Your task to perform on an android device: Open calendar and show me the third week of next month Image 0: 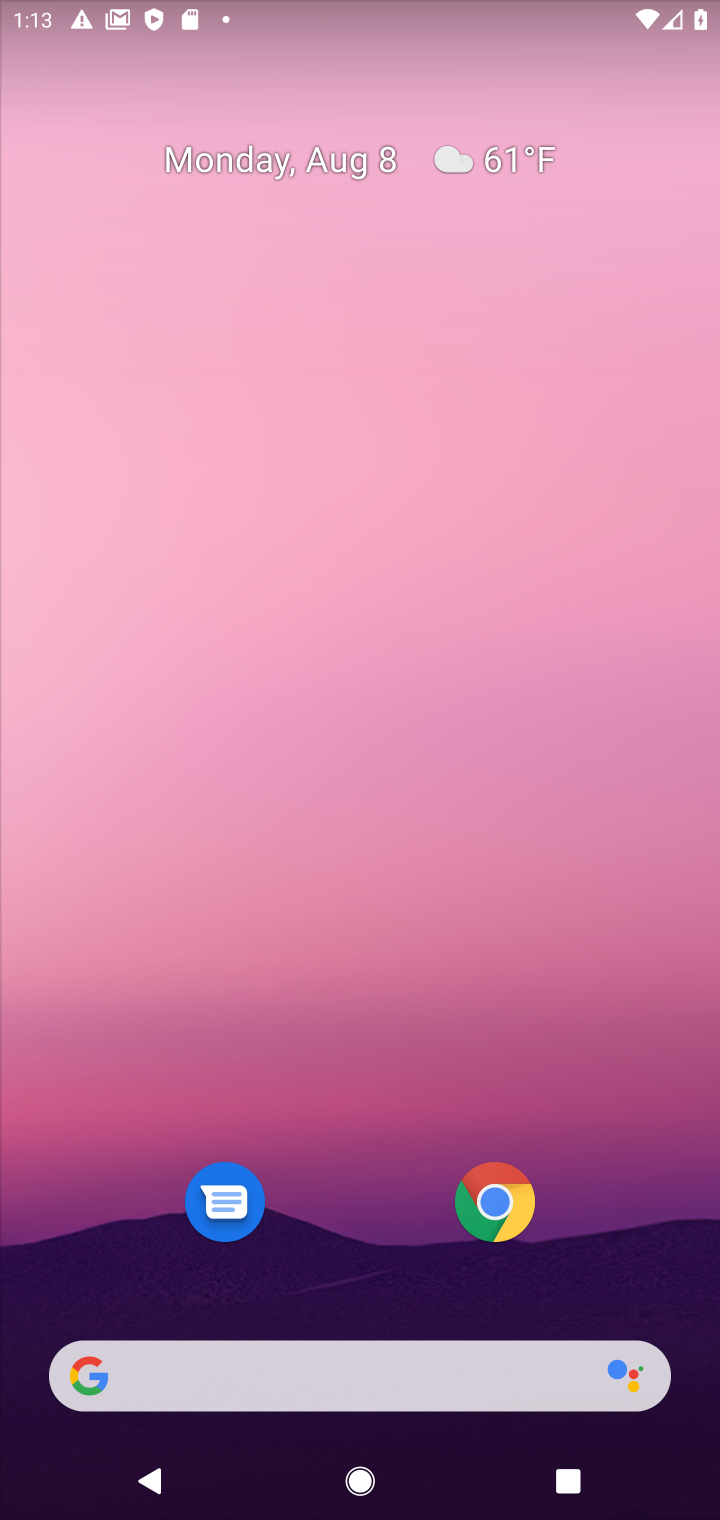
Step 0: drag from (380, 974) to (437, 375)
Your task to perform on an android device: Open calendar and show me the third week of next month Image 1: 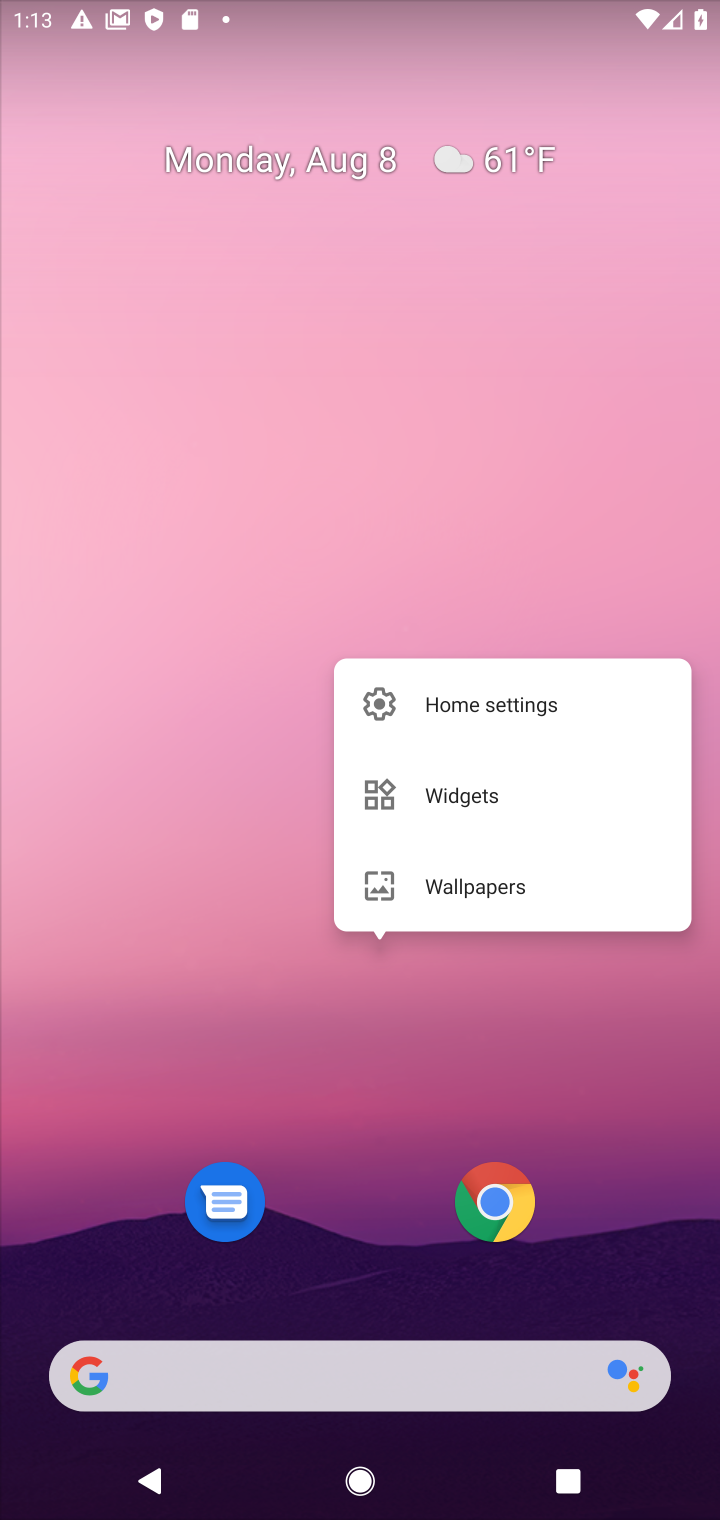
Step 1: click (336, 1020)
Your task to perform on an android device: Open calendar and show me the third week of next month Image 2: 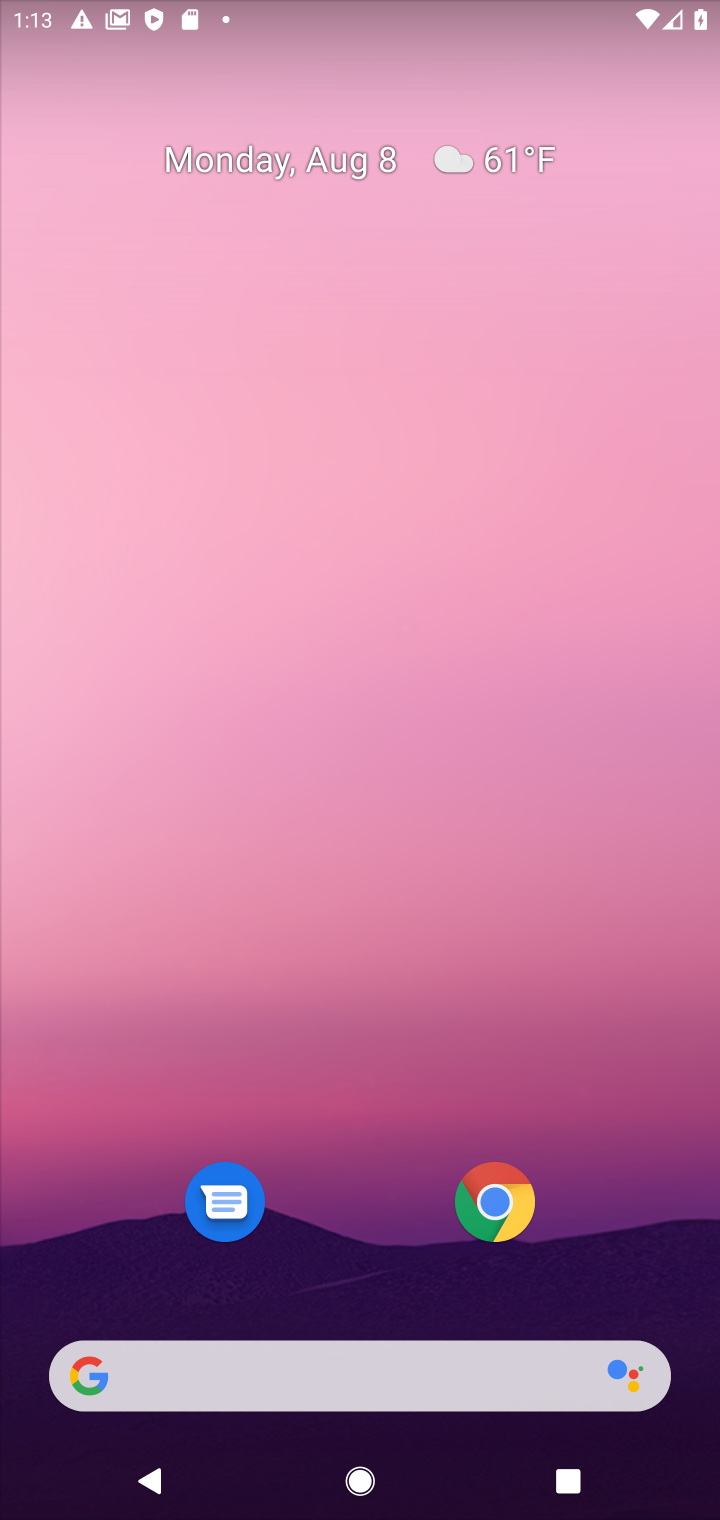
Step 2: drag from (384, 885) to (427, 206)
Your task to perform on an android device: Open calendar and show me the third week of next month Image 3: 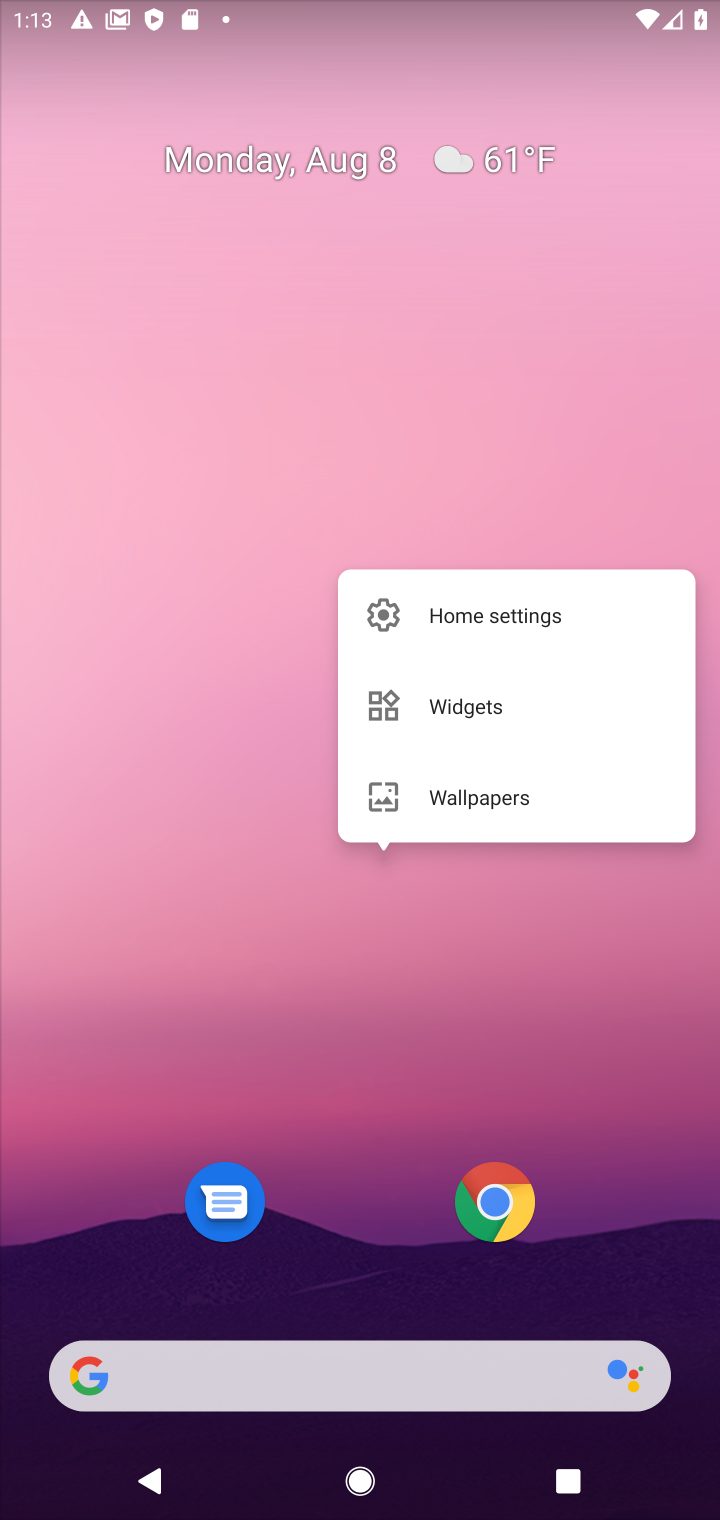
Step 3: click (658, 1011)
Your task to perform on an android device: Open calendar and show me the third week of next month Image 4: 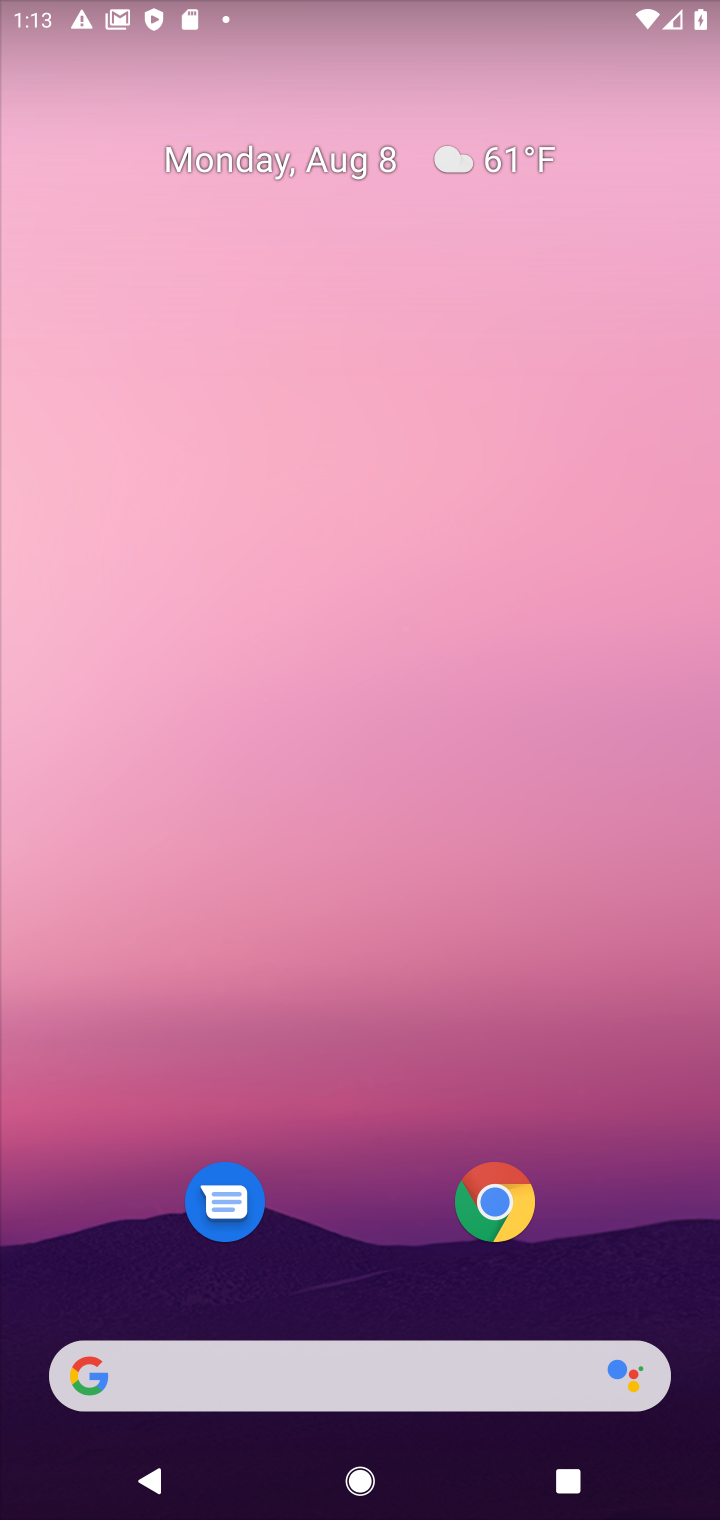
Step 4: drag from (631, 645) to (664, 75)
Your task to perform on an android device: Open calendar and show me the third week of next month Image 5: 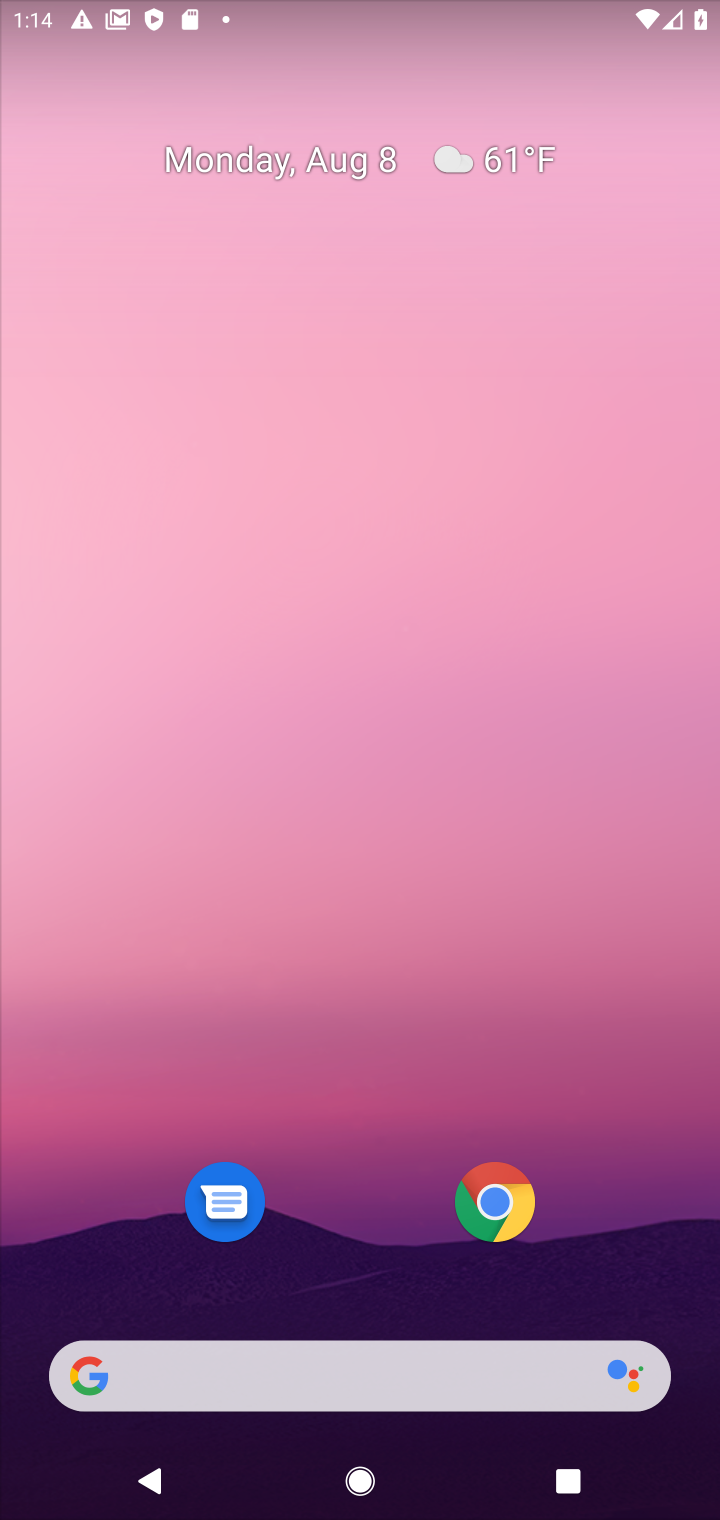
Step 5: drag from (639, 1264) to (669, 94)
Your task to perform on an android device: Open calendar and show me the third week of next month Image 6: 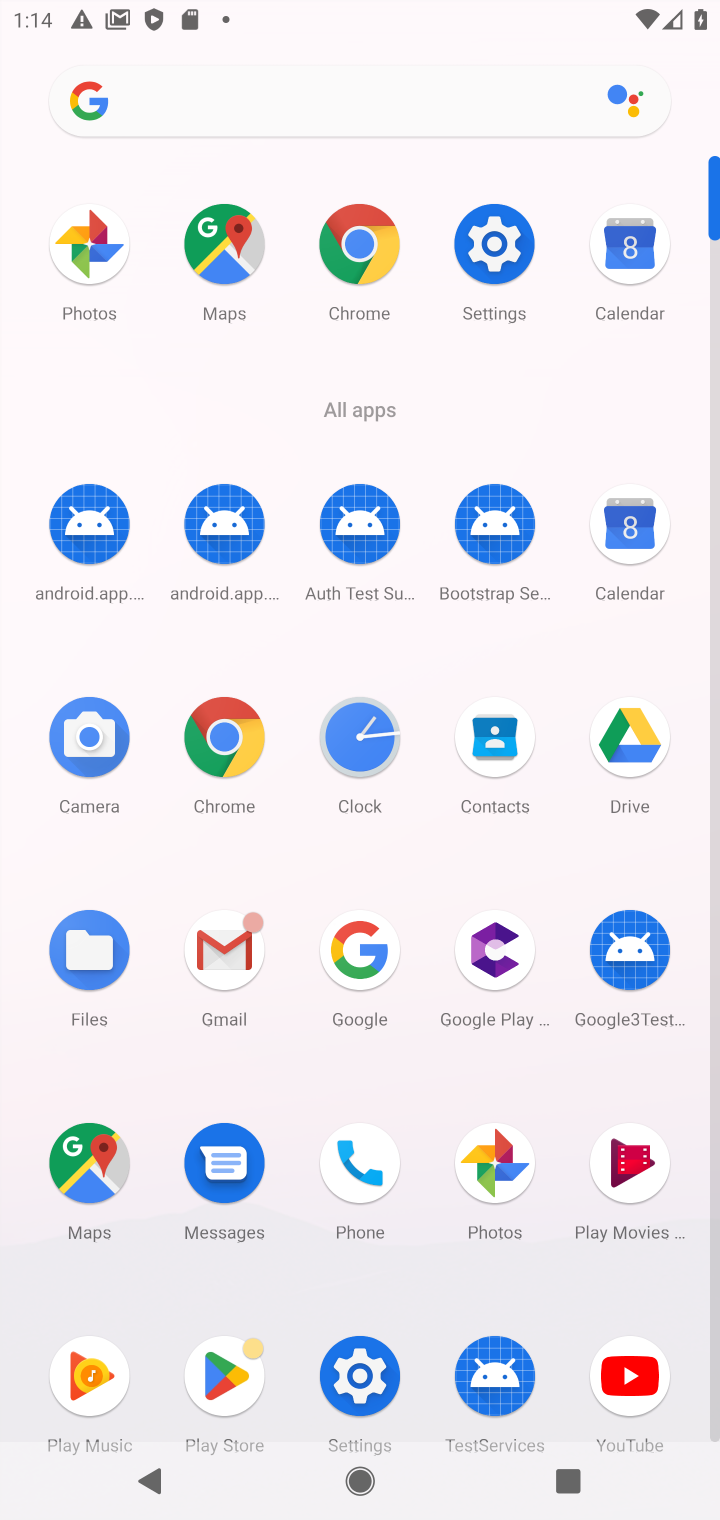
Step 6: click (628, 519)
Your task to perform on an android device: Open calendar and show me the third week of next month Image 7: 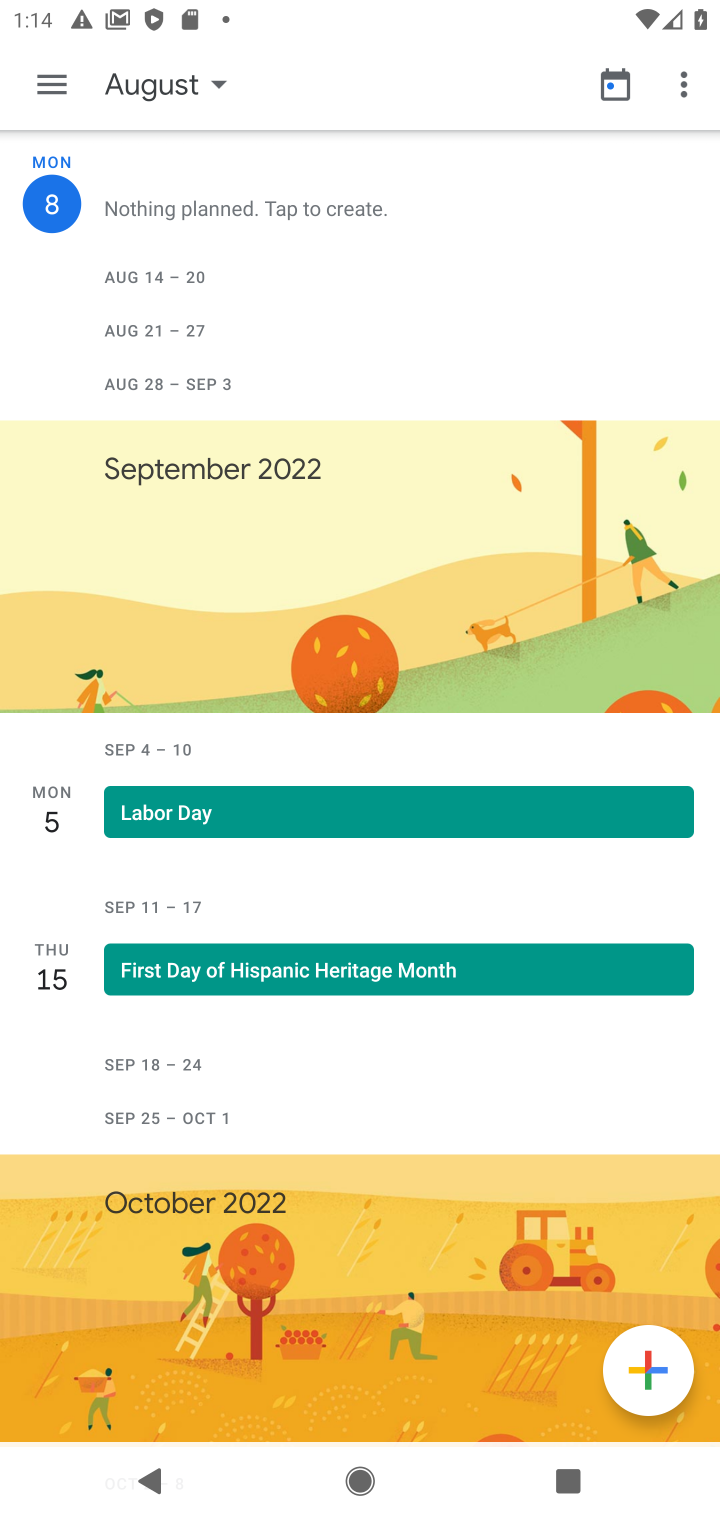
Step 7: click (217, 84)
Your task to perform on an android device: Open calendar and show me the third week of next month Image 8: 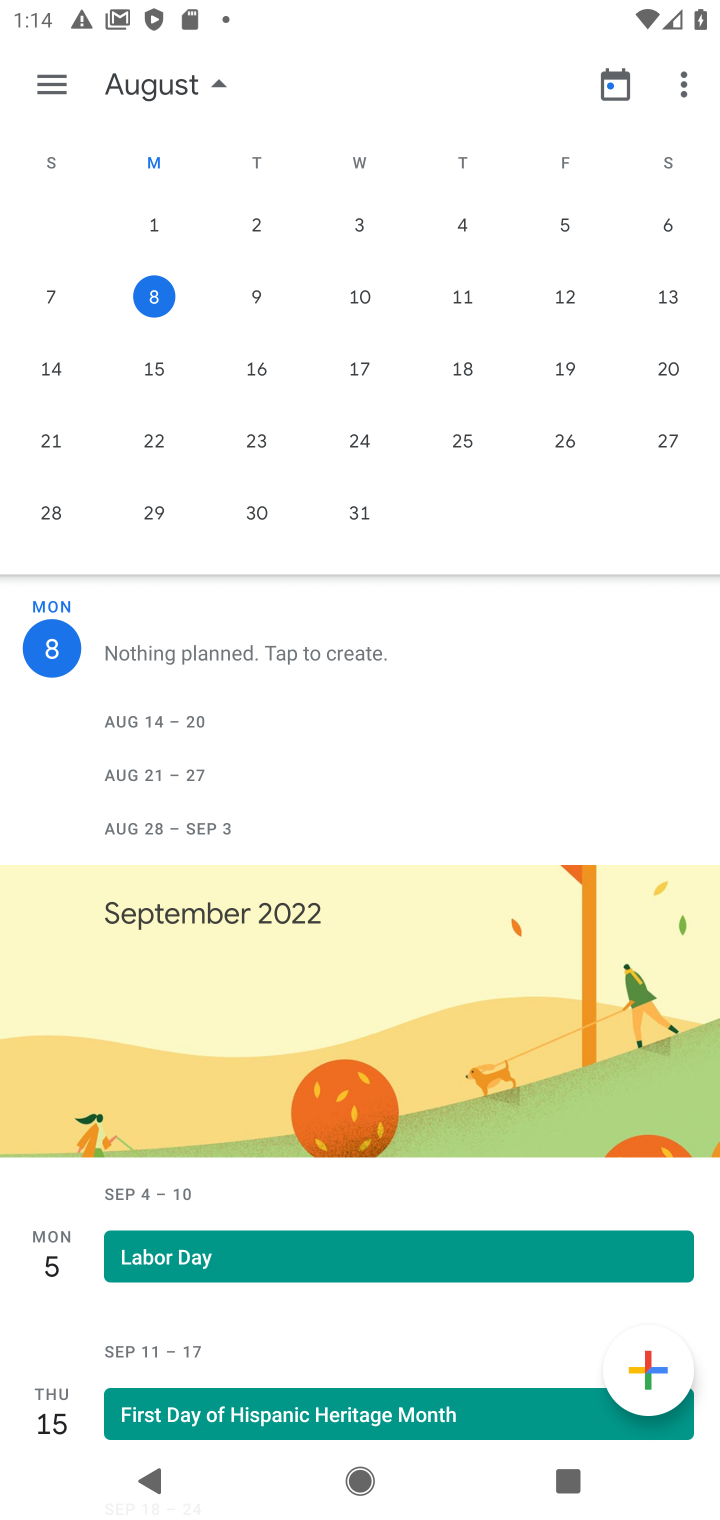
Step 8: drag from (672, 240) to (116, 252)
Your task to perform on an android device: Open calendar and show me the third week of next month Image 9: 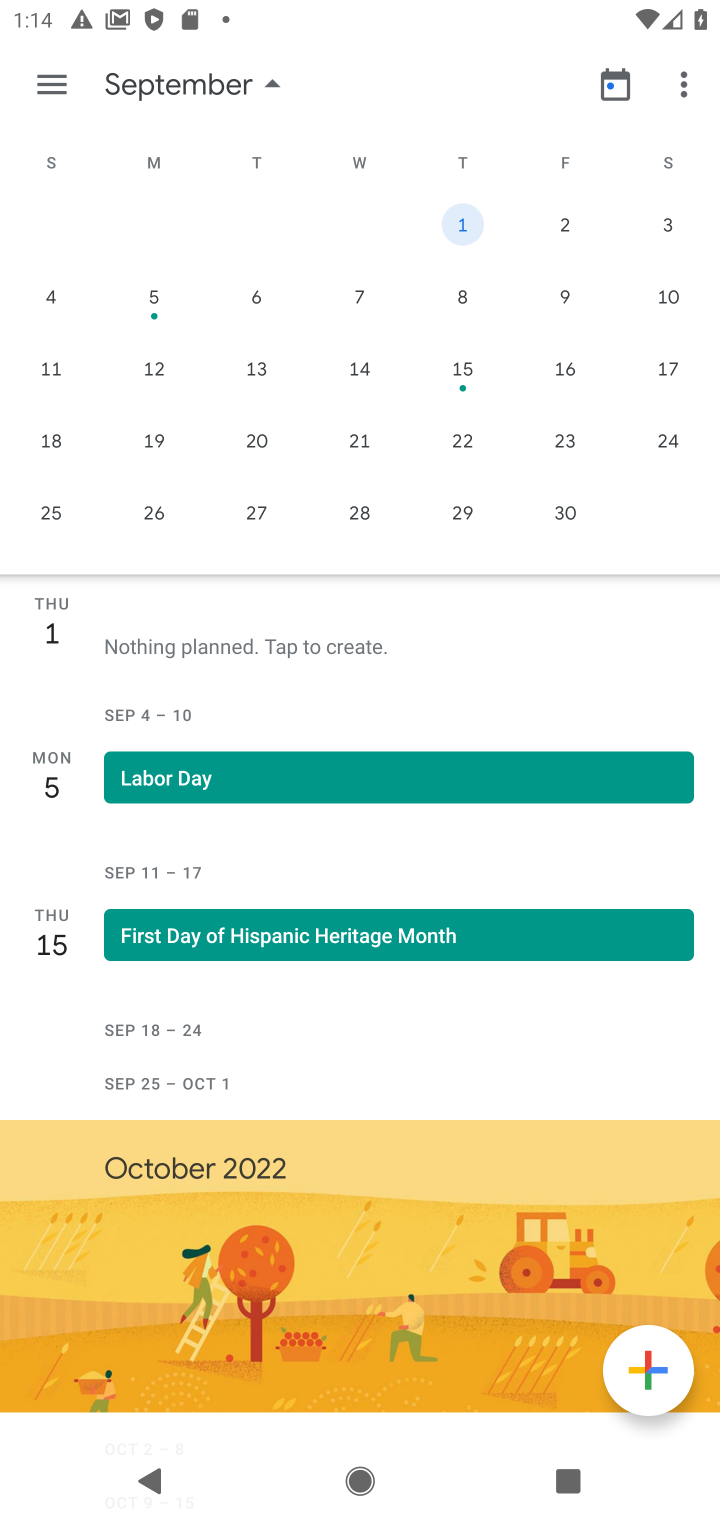
Step 9: click (145, 365)
Your task to perform on an android device: Open calendar and show me the third week of next month Image 10: 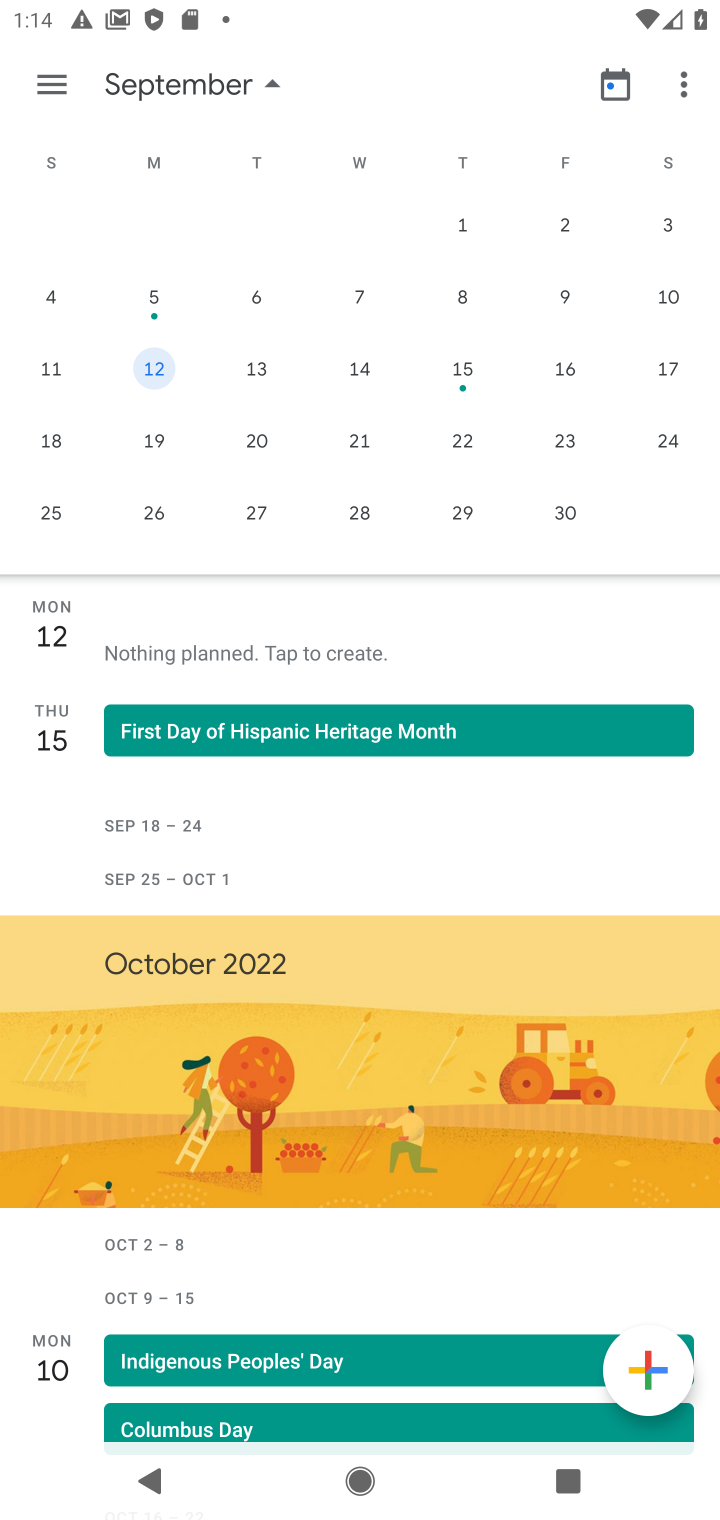
Step 10: task complete